Your task to perform on an android device: open wifi settings Image 0: 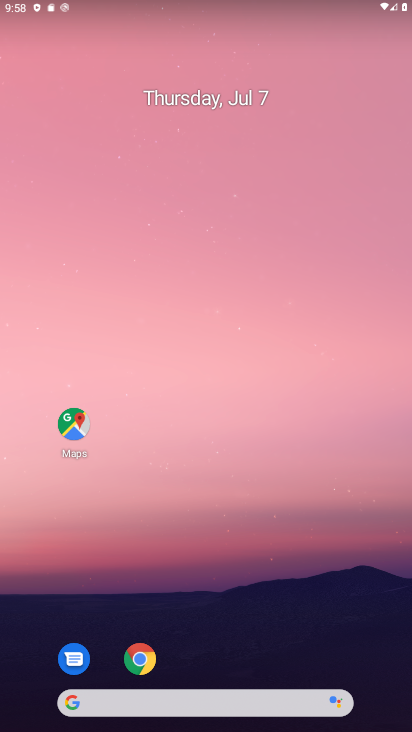
Step 0: drag from (158, 701) to (151, 221)
Your task to perform on an android device: open wifi settings Image 1: 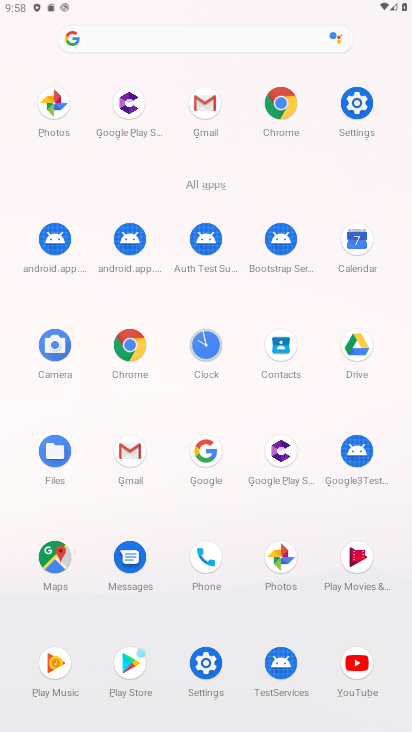
Step 1: click (365, 110)
Your task to perform on an android device: open wifi settings Image 2: 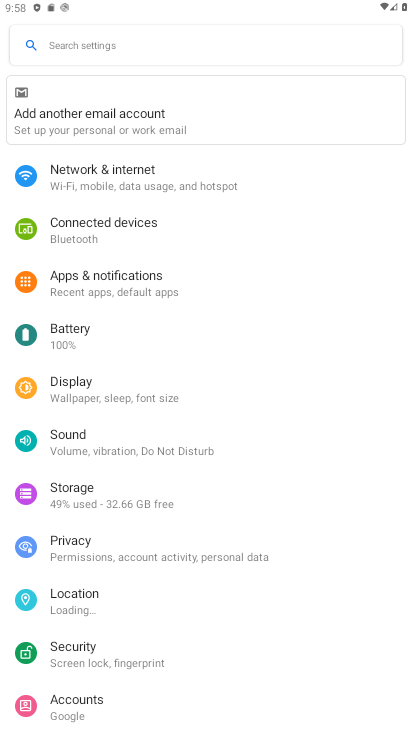
Step 2: click (170, 167)
Your task to perform on an android device: open wifi settings Image 3: 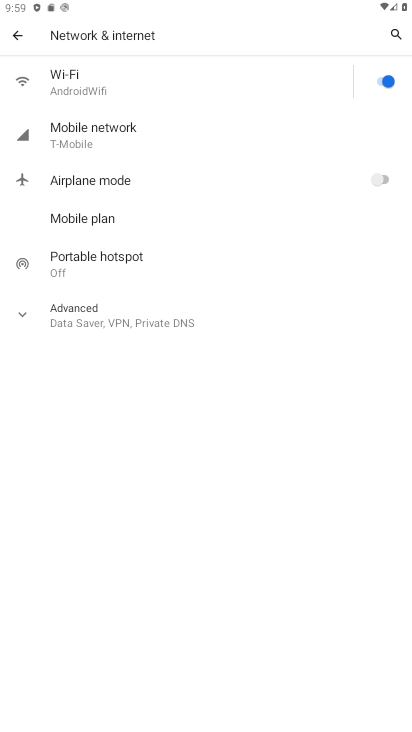
Step 3: click (125, 83)
Your task to perform on an android device: open wifi settings Image 4: 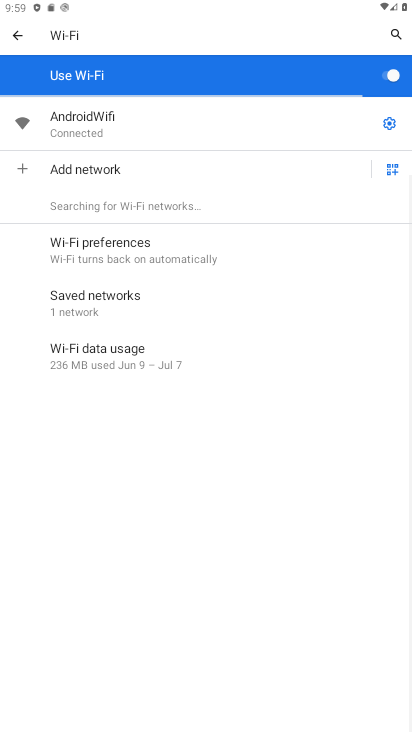
Step 4: task complete